Your task to perform on an android device: turn on wifi Image 0: 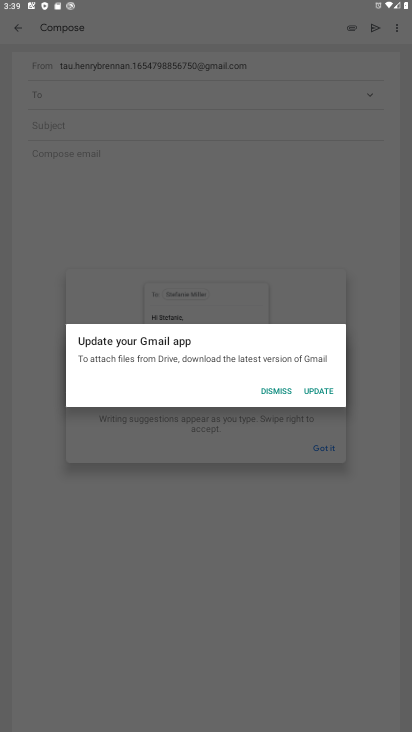
Step 0: press home button
Your task to perform on an android device: turn on wifi Image 1: 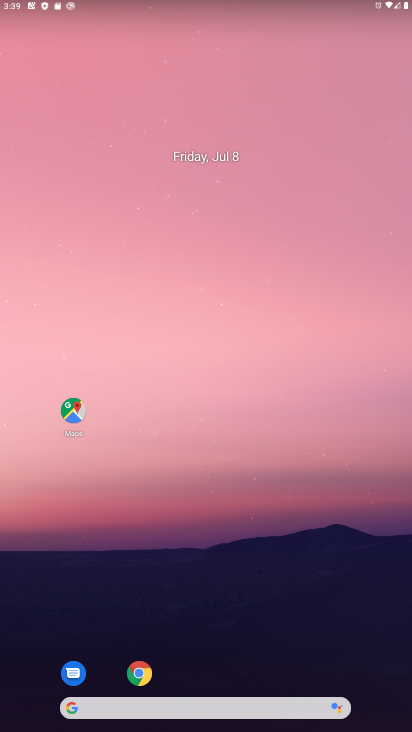
Step 1: drag from (289, 629) to (335, 129)
Your task to perform on an android device: turn on wifi Image 2: 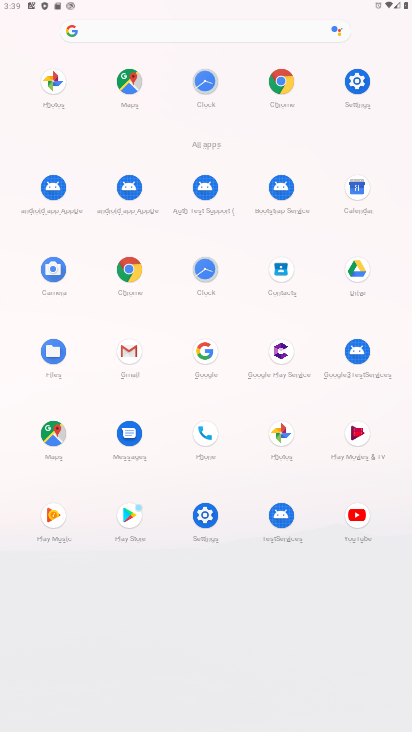
Step 2: click (367, 69)
Your task to perform on an android device: turn on wifi Image 3: 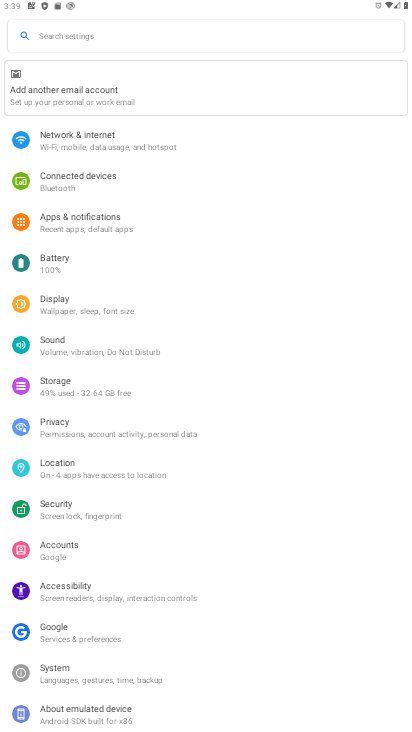
Step 3: click (103, 127)
Your task to perform on an android device: turn on wifi Image 4: 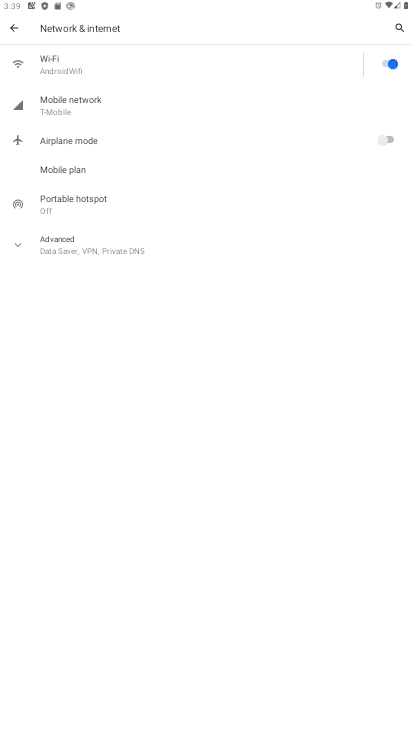
Step 4: click (62, 70)
Your task to perform on an android device: turn on wifi Image 5: 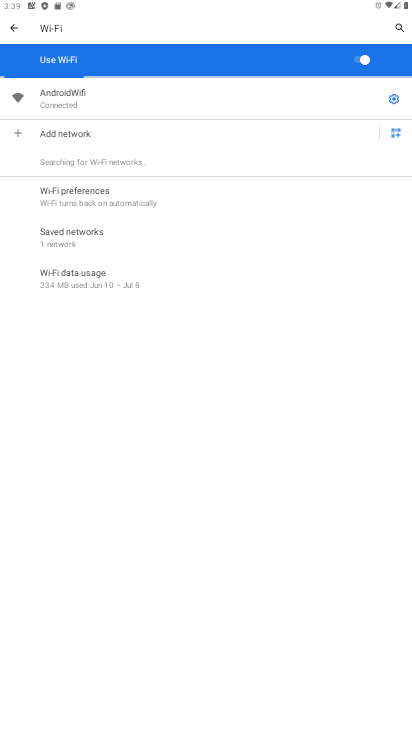
Step 5: task complete